Your task to perform on an android device: Go to Android settings Image 0: 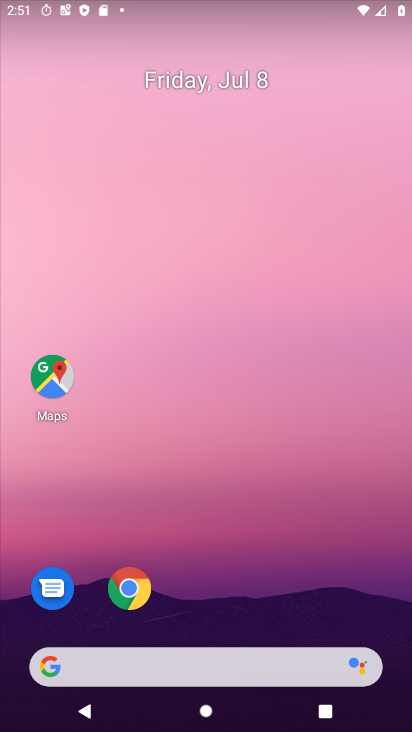
Step 0: press home button
Your task to perform on an android device: Go to Android settings Image 1: 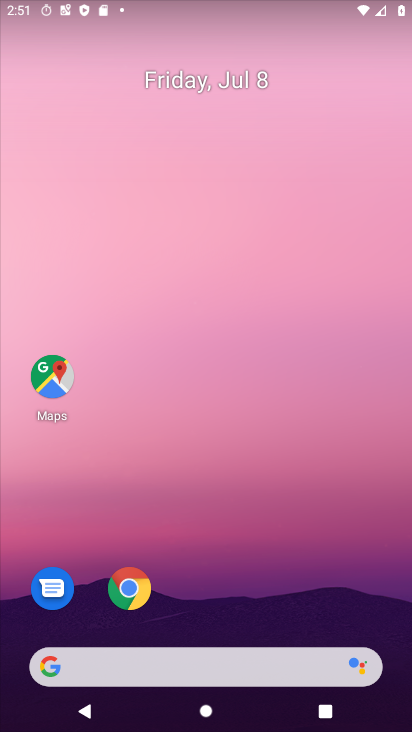
Step 1: drag from (276, 597) to (243, 199)
Your task to perform on an android device: Go to Android settings Image 2: 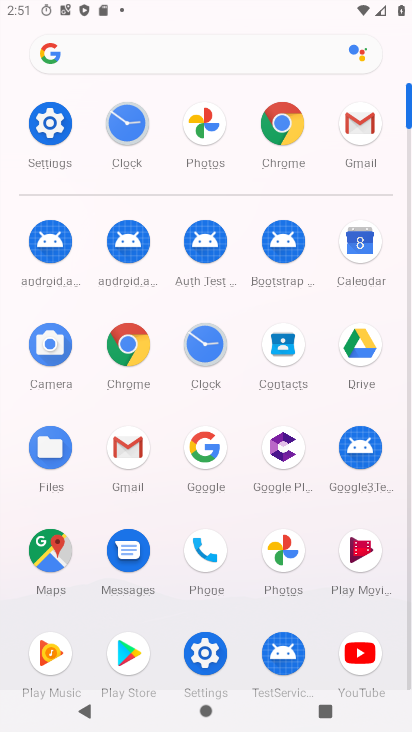
Step 2: click (52, 127)
Your task to perform on an android device: Go to Android settings Image 3: 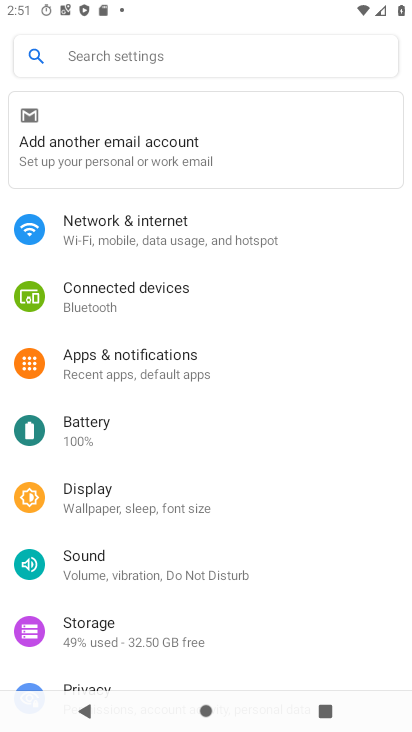
Step 3: task complete